Your task to perform on an android device: open device folders in google photos Image 0: 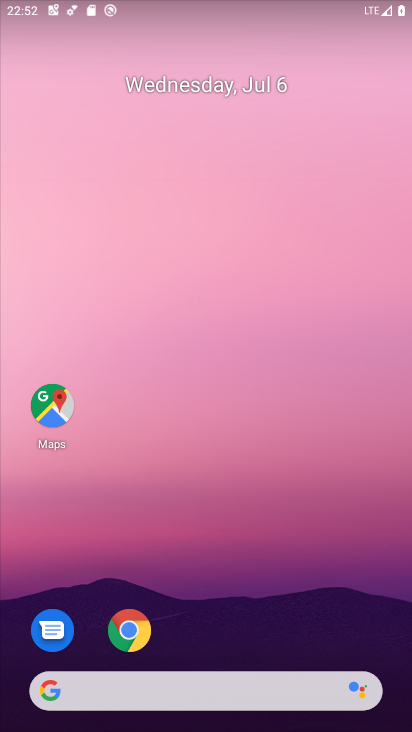
Step 0: drag from (178, 671) to (213, 146)
Your task to perform on an android device: open device folders in google photos Image 1: 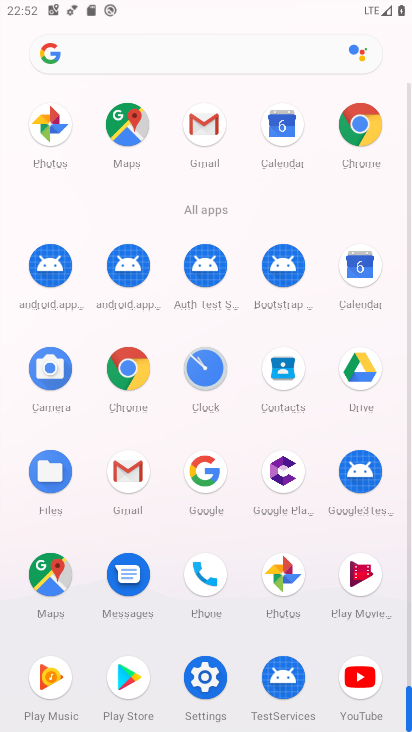
Step 1: click (284, 580)
Your task to perform on an android device: open device folders in google photos Image 2: 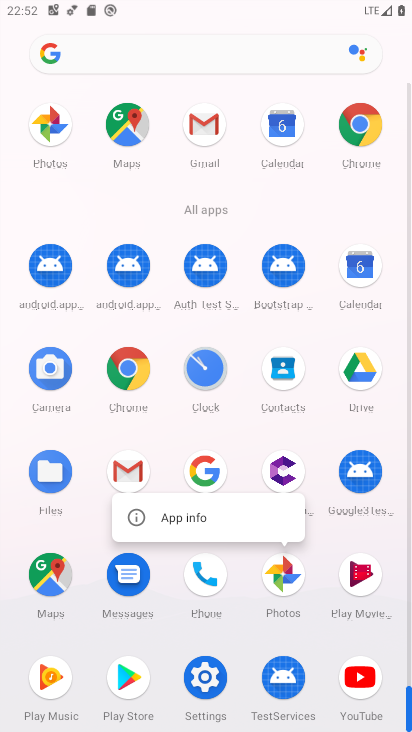
Step 2: click (189, 514)
Your task to perform on an android device: open device folders in google photos Image 3: 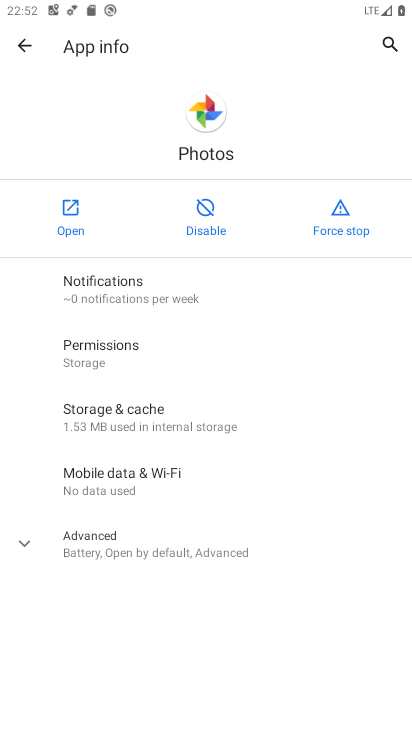
Step 3: click (66, 218)
Your task to perform on an android device: open device folders in google photos Image 4: 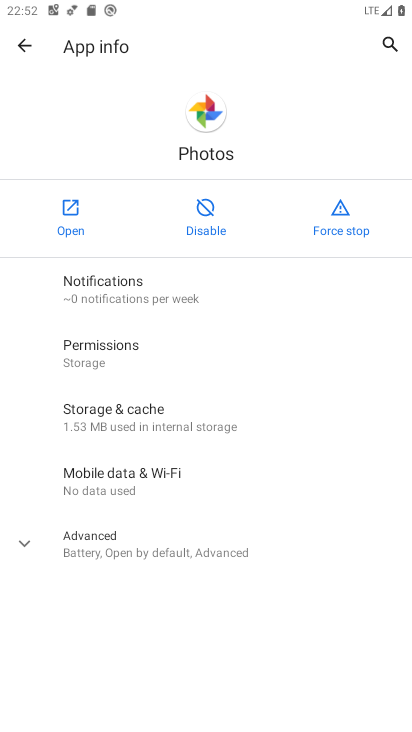
Step 4: click (66, 218)
Your task to perform on an android device: open device folders in google photos Image 5: 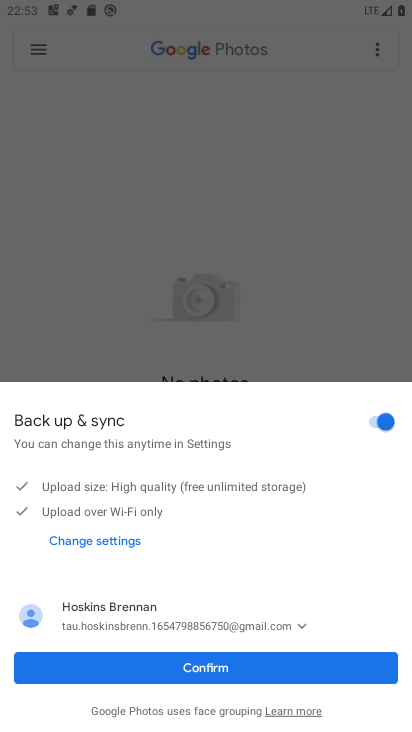
Step 5: click (317, 273)
Your task to perform on an android device: open device folders in google photos Image 6: 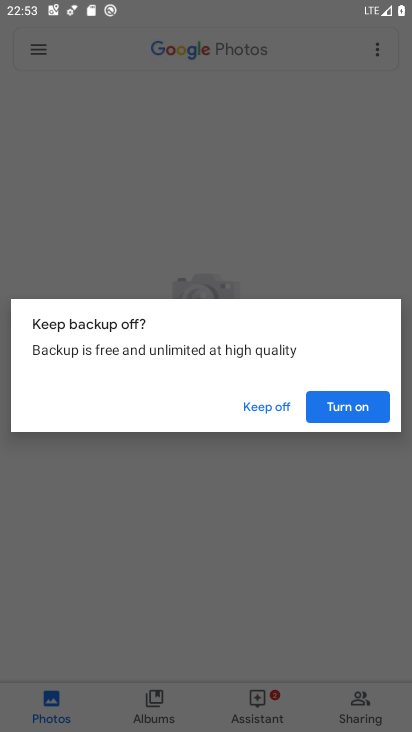
Step 6: click (274, 408)
Your task to perform on an android device: open device folders in google photos Image 7: 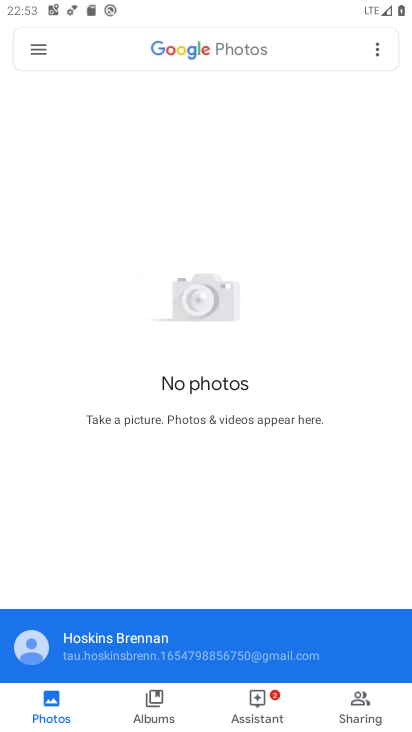
Step 7: drag from (322, 495) to (386, 377)
Your task to perform on an android device: open device folders in google photos Image 8: 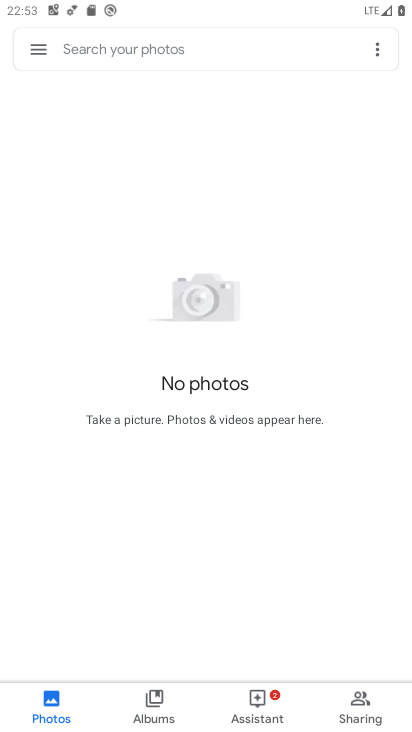
Step 8: click (349, 704)
Your task to perform on an android device: open device folders in google photos Image 9: 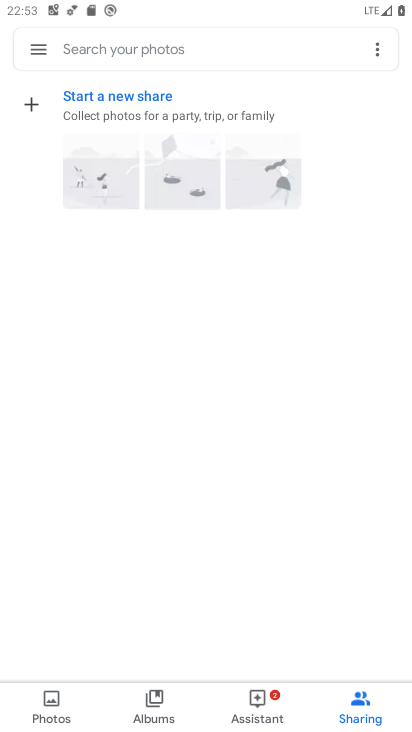
Step 9: click (45, 716)
Your task to perform on an android device: open device folders in google photos Image 10: 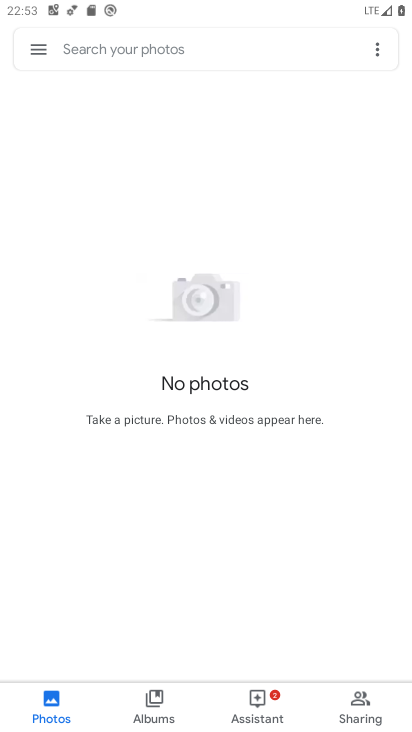
Step 10: click (25, 55)
Your task to perform on an android device: open device folders in google photos Image 11: 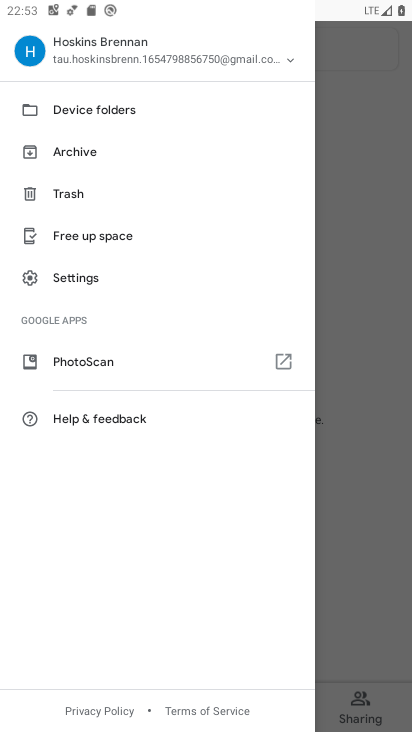
Step 11: click (103, 117)
Your task to perform on an android device: open device folders in google photos Image 12: 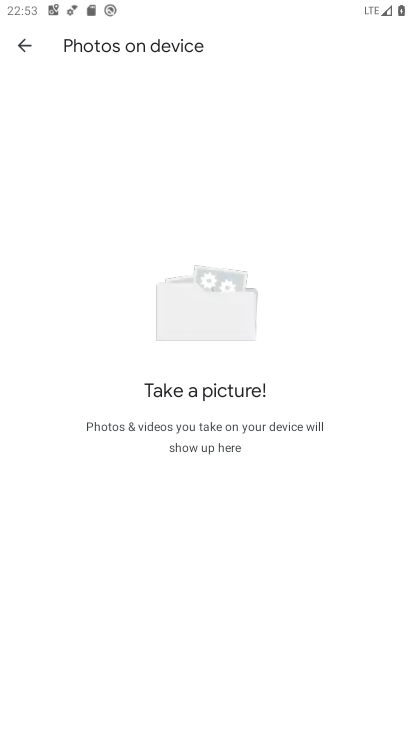
Step 12: task complete